Your task to perform on an android device: Toggle the flashlight Image 0: 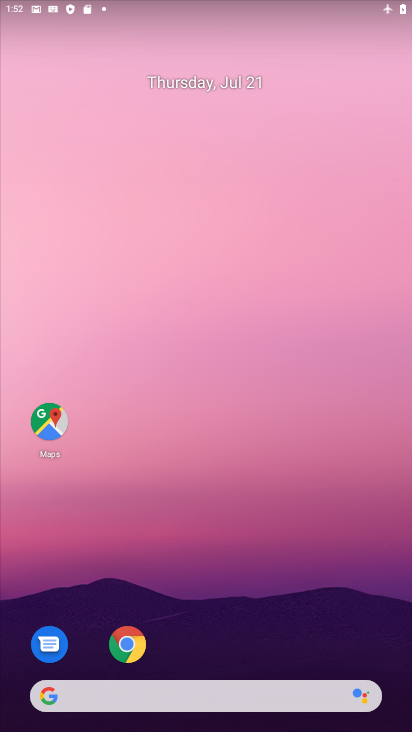
Step 0: drag from (295, 6) to (286, 408)
Your task to perform on an android device: Toggle the flashlight Image 1: 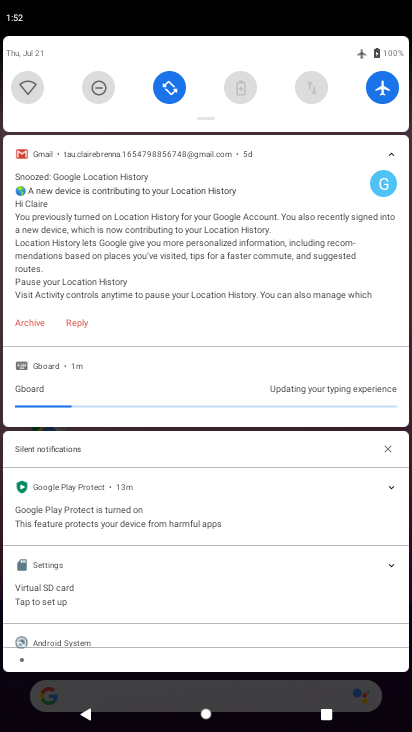
Step 1: drag from (202, 96) to (203, 423)
Your task to perform on an android device: Toggle the flashlight Image 2: 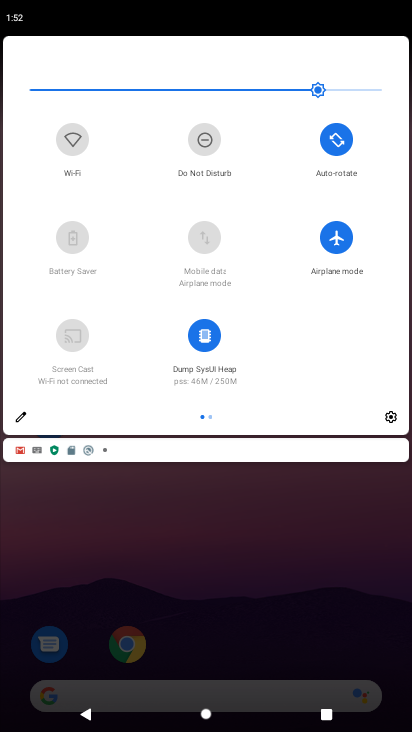
Step 2: click (19, 414)
Your task to perform on an android device: Toggle the flashlight Image 3: 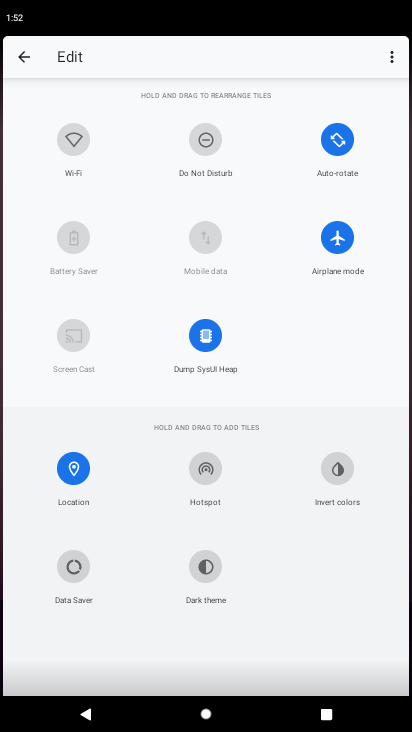
Step 3: task complete